Your task to perform on an android device: change notifications settings Image 0: 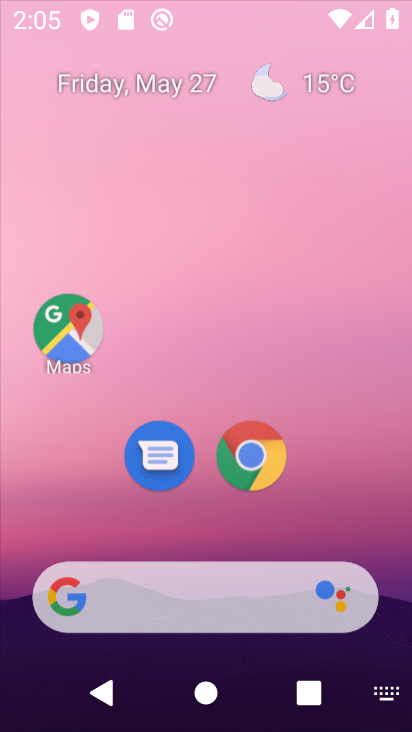
Step 0: press home button
Your task to perform on an android device: change notifications settings Image 1: 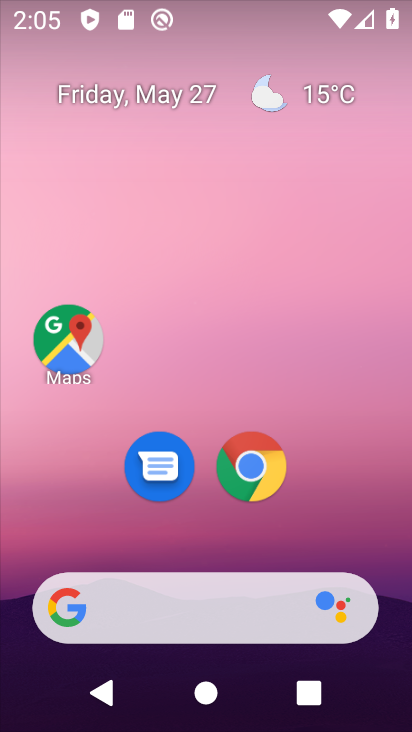
Step 1: drag from (343, 554) to (323, 126)
Your task to perform on an android device: change notifications settings Image 2: 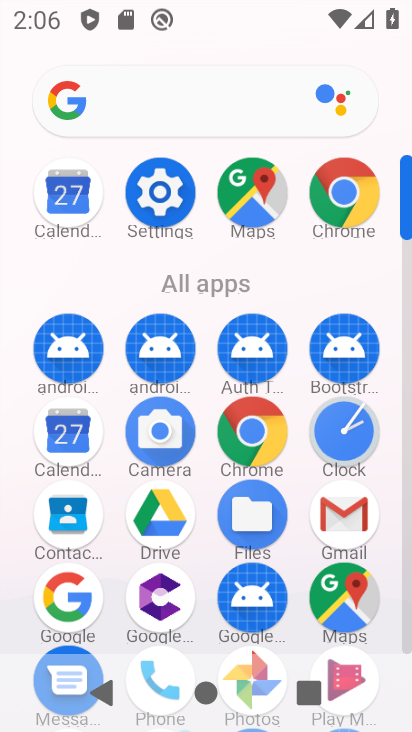
Step 2: click (166, 202)
Your task to perform on an android device: change notifications settings Image 3: 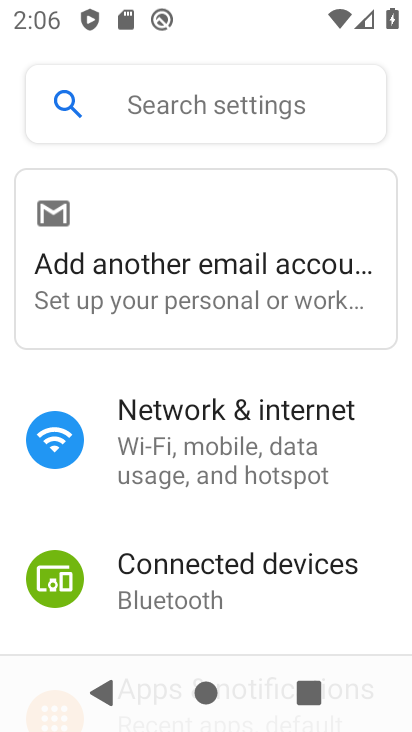
Step 3: drag from (248, 613) to (241, 286)
Your task to perform on an android device: change notifications settings Image 4: 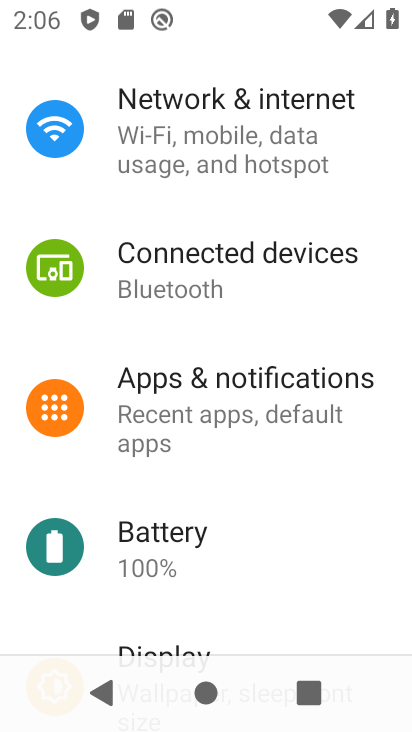
Step 4: click (252, 404)
Your task to perform on an android device: change notifications settings Image 5: 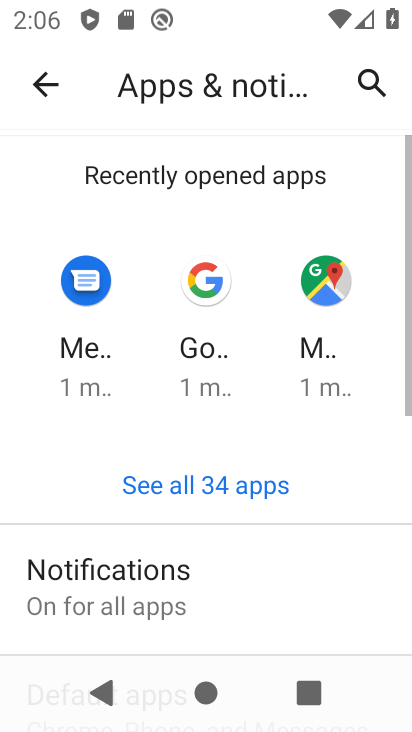
Step 5: click (157, 561)
Your task to perform on an android device: change notifications settings Image 6: 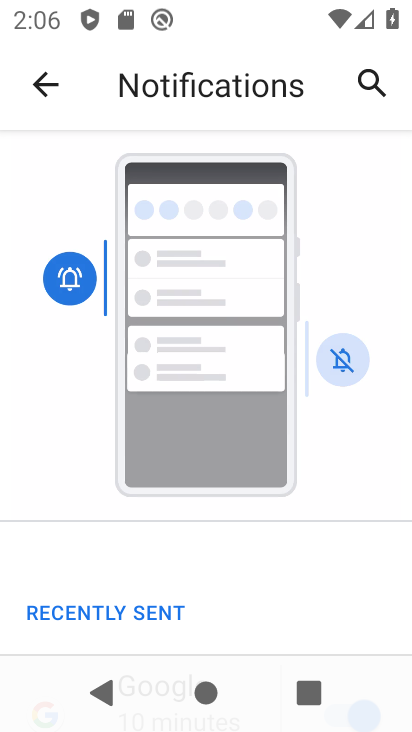
Step 6: task complete